Your task to perform on an android device: visit the assistant section in the google photos Image 0: 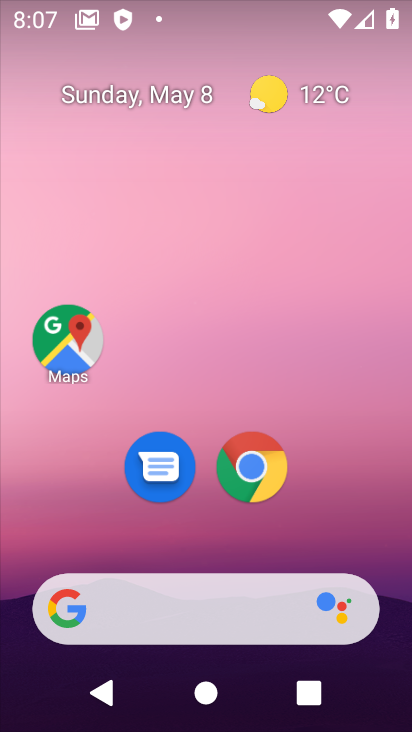
Step 0: drag from (196, 549) to (299, 55)
Your task to perform on an android device: visit the assistant section in the google photos Image 1: 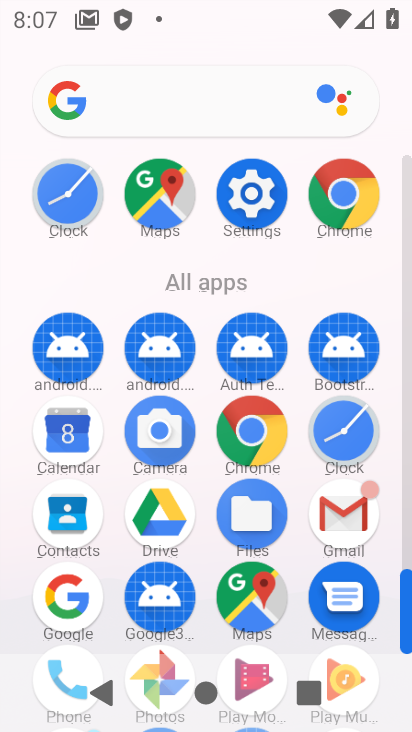
Step 1: drag from (211, 586) to (274, 163)
Your task to perform on an android device: visit the assistant section in the google photos Image 2: 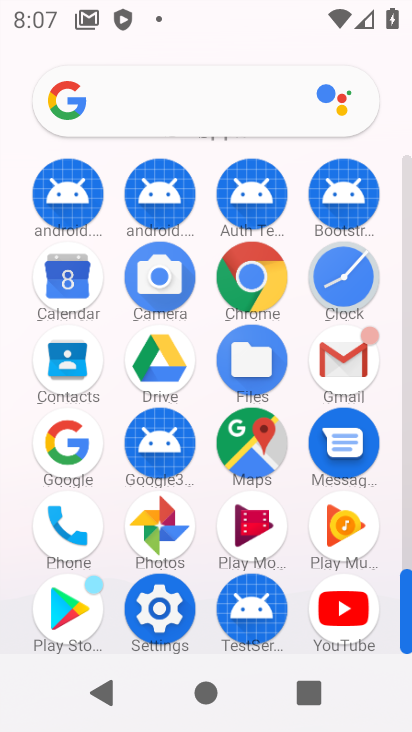
Step 2: click (171, 527)
Your task to perform on an android device: visit the assistant section in the google photos Image 3: 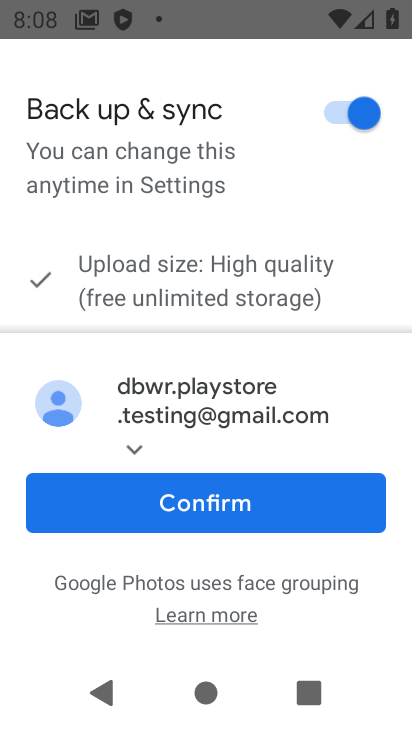
Step 3: click (221, 505)
Your task to perform on an android device: visit the assistant section in the google photos Image 4: 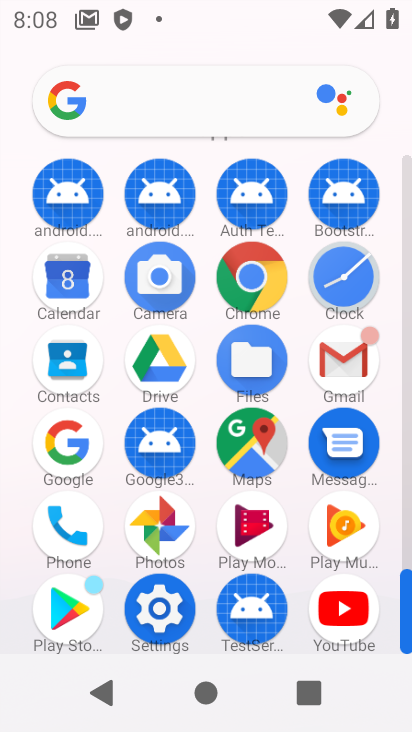
Step 4: click (171, 529)
Your task to perform on an android device: visit the assistant section in the google photos Image 5: 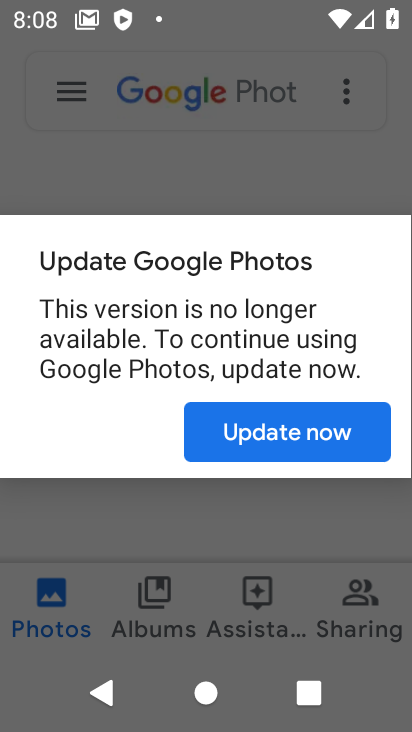
Step 5: click (260, 440)
Your task to perform on an android device: visit the assistant section in the google photos Image 6: 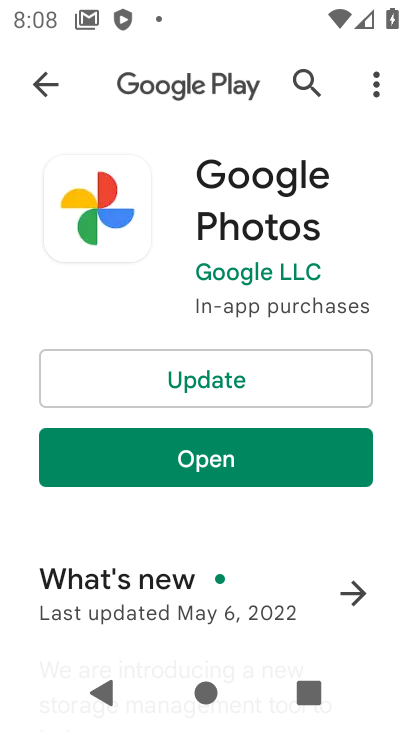
Step 6: click (253, 444)
Your task to perform on an android device: visit the assistant section in the google photos Image 7: 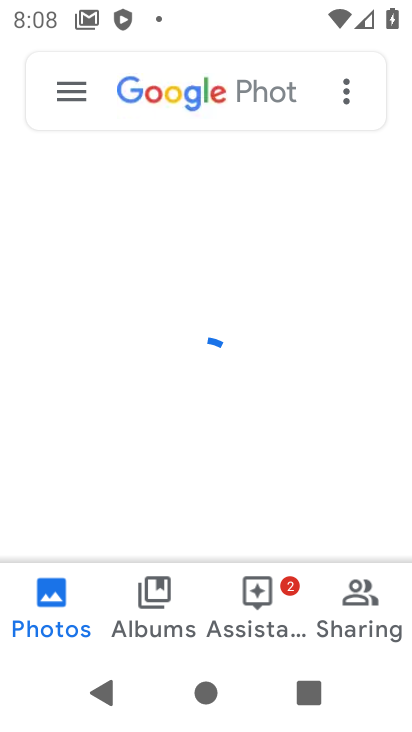
Step 7: click (266, 609)
Your task to perform on an android device: visit the assistant section in the google photos Image 8: 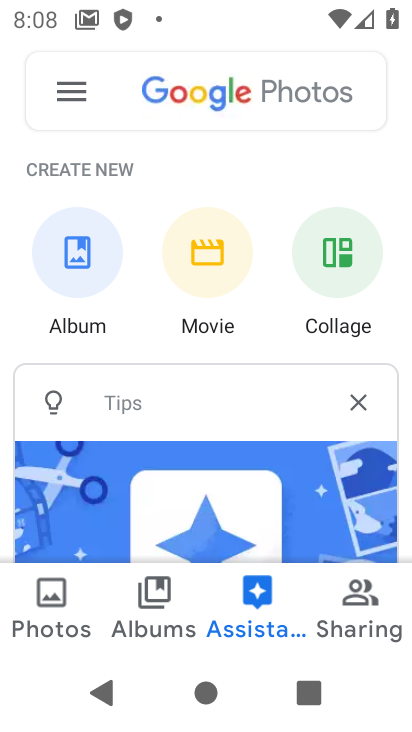
Step 8: task complete